Your task to perform on an android device: turn off priority inbox in the gmail app Image 0: 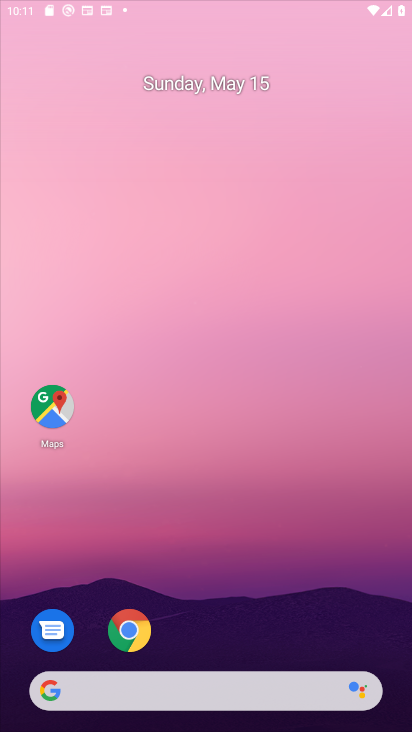
Step 0: press home button
Your task to perform on an android device: turn off priority inbox in the gmail app Image 1: 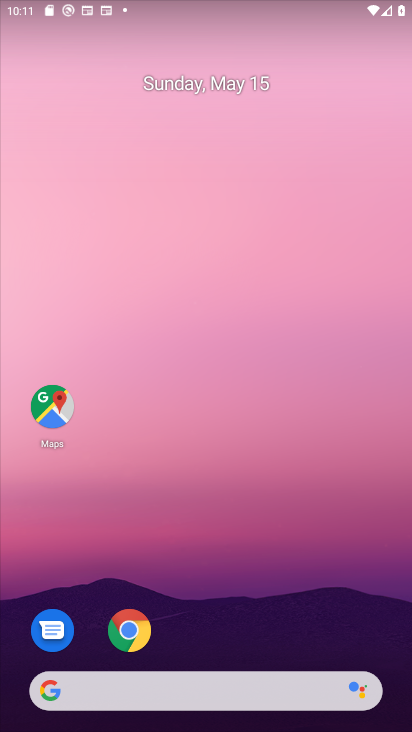
Step 1: drag from (207, 656) to (228, 4)
Your task to perform on an android device: turn off priority inbox in the gmail app Image 2: 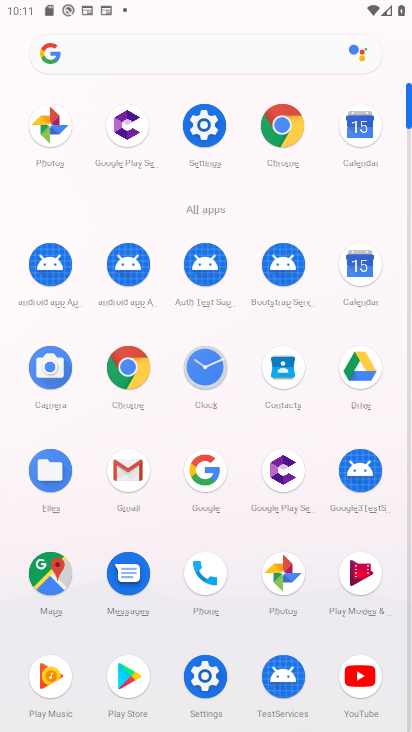
Step 2: click (126, 466)
Your task to perform on an android device: turn off priority inbox in the gmail app Image 3: 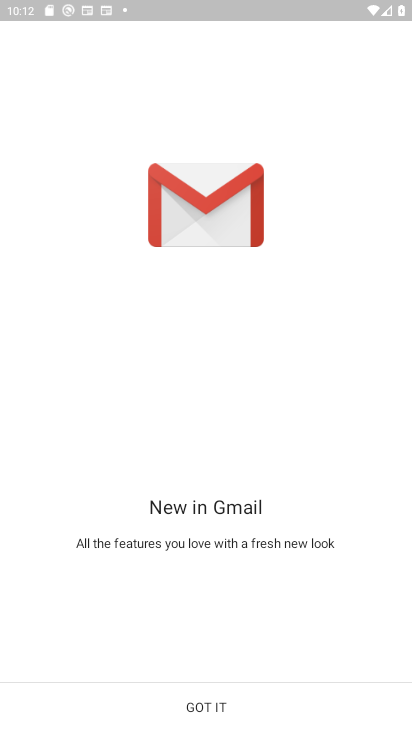
Step 3: click (209, 707)
Your task to perform on an android device: turn off priority inbox in the gmail app Image 4: 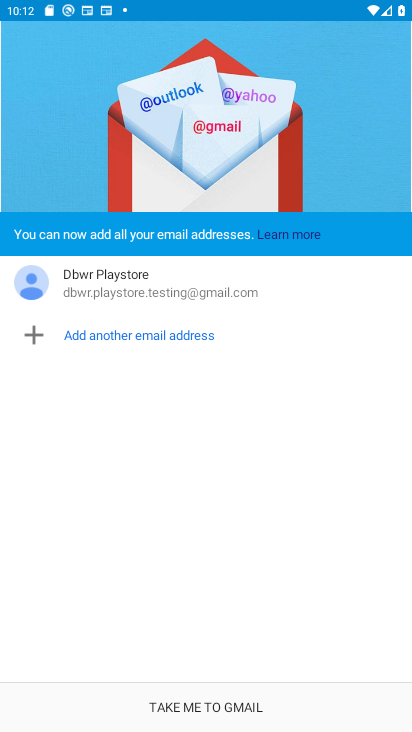
Step 4: click (209, 704)
Your task to perform on an android device: turn off priority inbox in the gmail app Image 5: 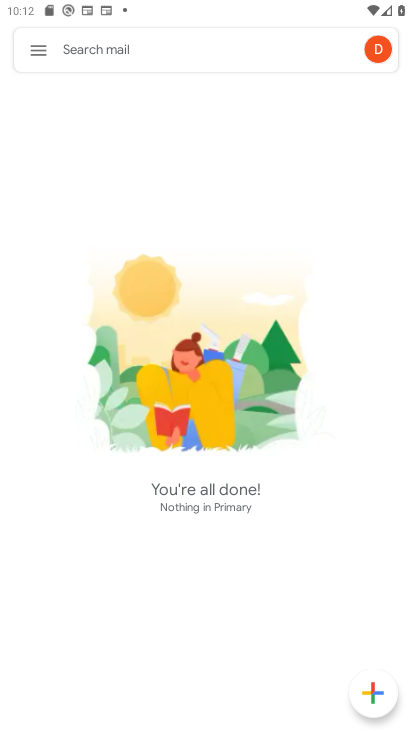
Step 5: click (30, 49)
Your task to perform on an android device: turn off priority inbox in the gmail app Image 6: 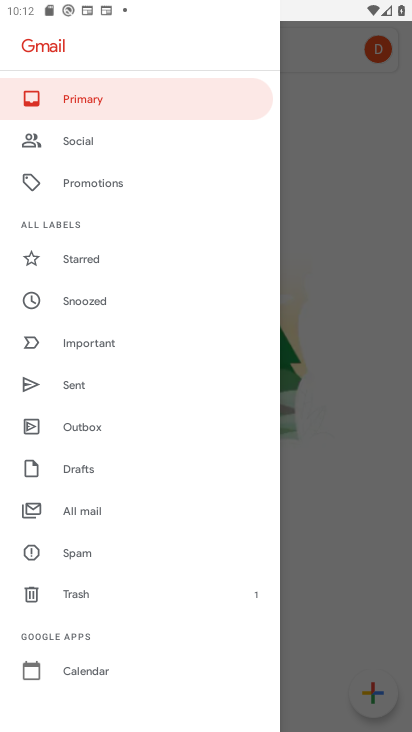
Step 6: drag from (120, 639) to (163, 90)
Your task to perform on an android device: turn off priority inbox in the gmail app Image 7: 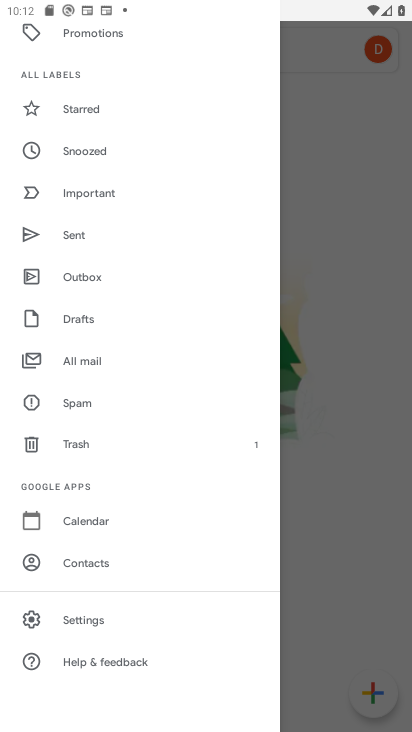
Step 7: click (113, 616)
Your task to perform on an android device: turn off priority inbox in the gmail app Image 8: 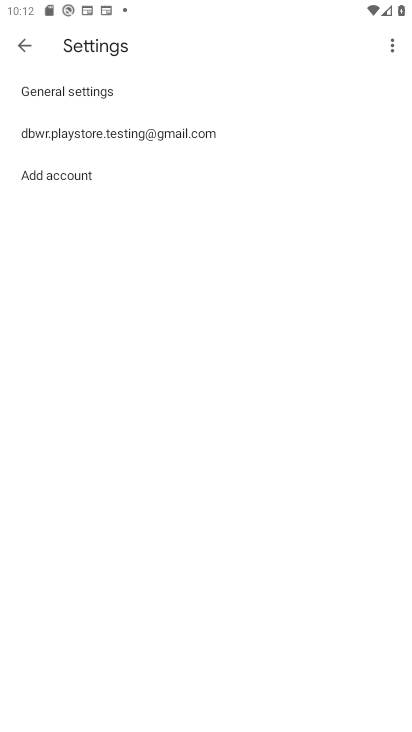
Step 8: click (224, 131)
Your task to perform on an android device: turn off priority inbox in the gmail app Image 9: 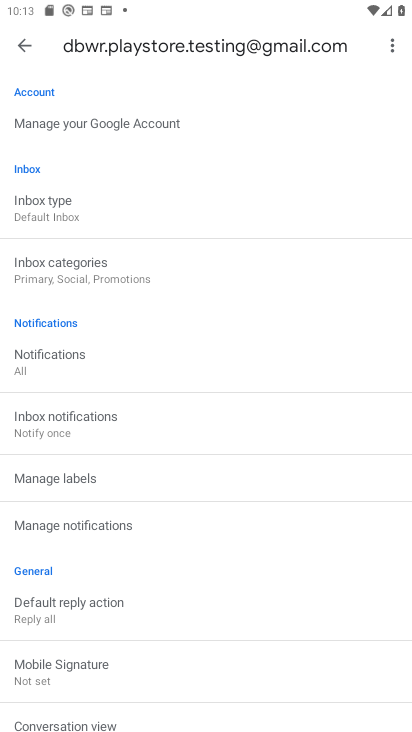
Step 9: click (91, 197)
Your task to perform on an android device: turn off priority inbox in the gmail app Image 10: 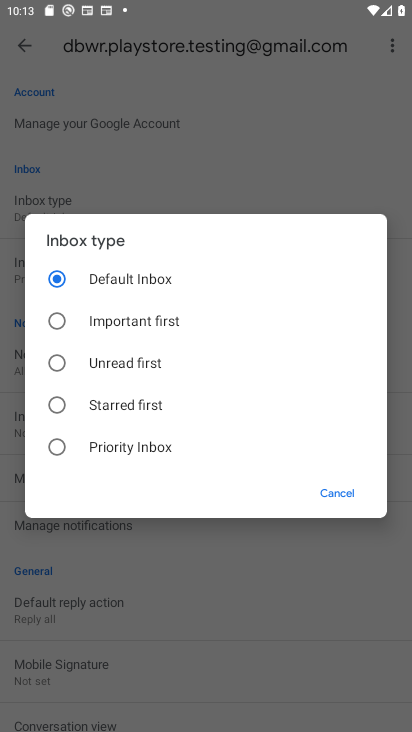
Step 10: click (59, 400)
Your task to perform on an android device: turn off priority inbox in the gmail app Image 11: 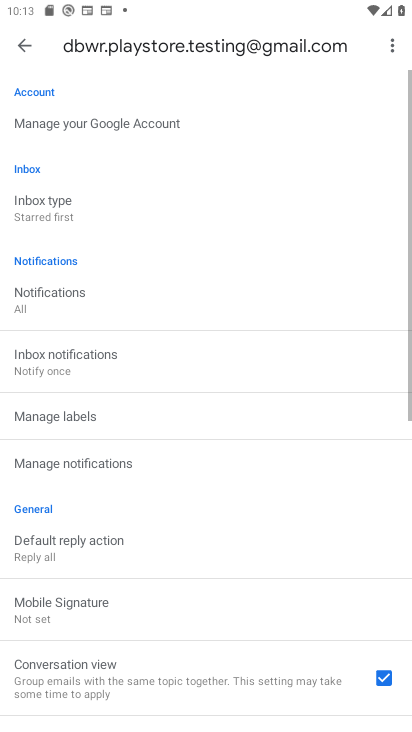
Step 11: task complete